Your task to perform on an android device: turn on airplane mode Image 0: 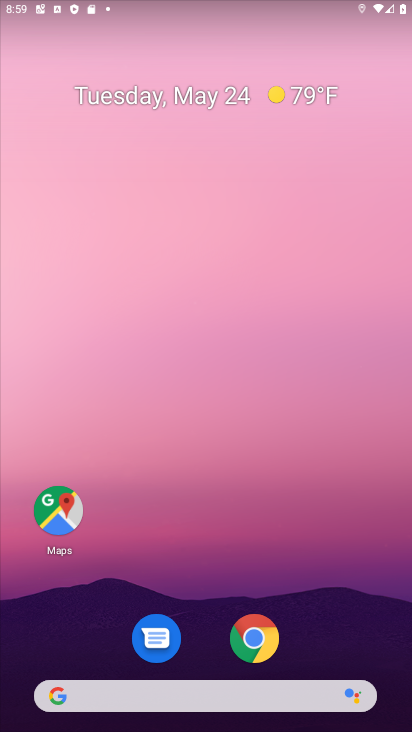
Step 0: drag from (87, 710) to (268, 49)
Your task to perform on an android device: turn on airplane mode Image 1: 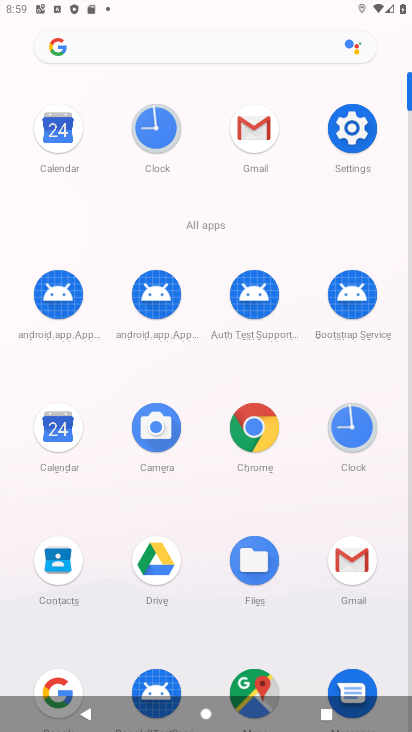
Step 1: click (343, 138)
Your task to perform on an android device: turn on airplane mode Image 2: 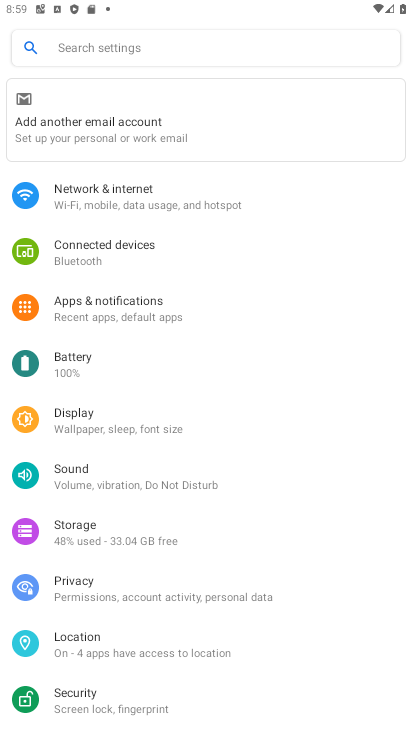
Step 2: click (218, 190)
Your task to perform on an android device: turn on airplane mode Image 3: 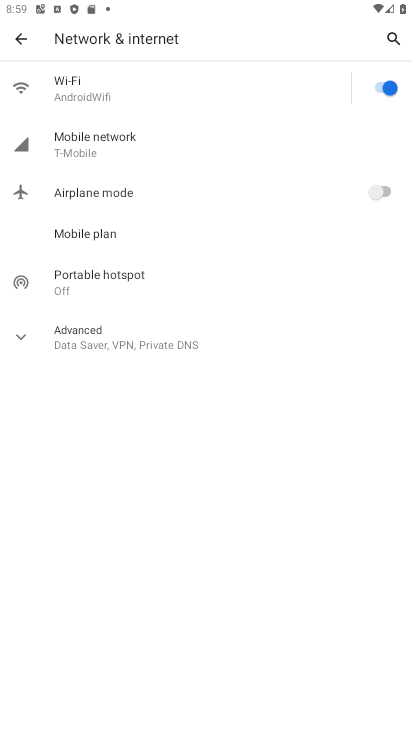
Step 3: click (382, 186)
Your task to perform on an android device: turn on airplane mode Image 4: 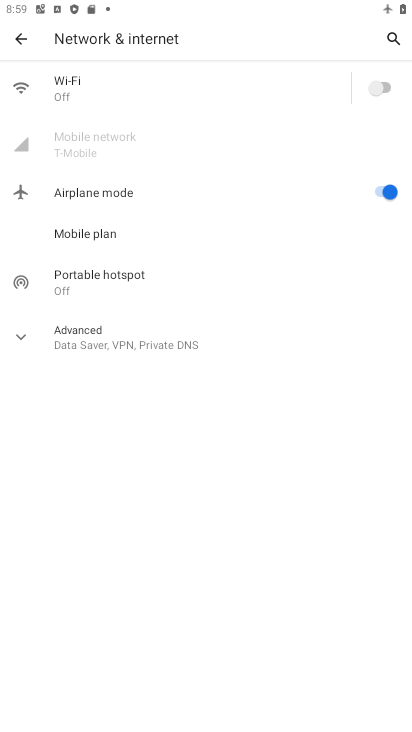
Step 4: task complete